Your task to perform on an android device: Search for Mexican restaurants on Maps Image 0: 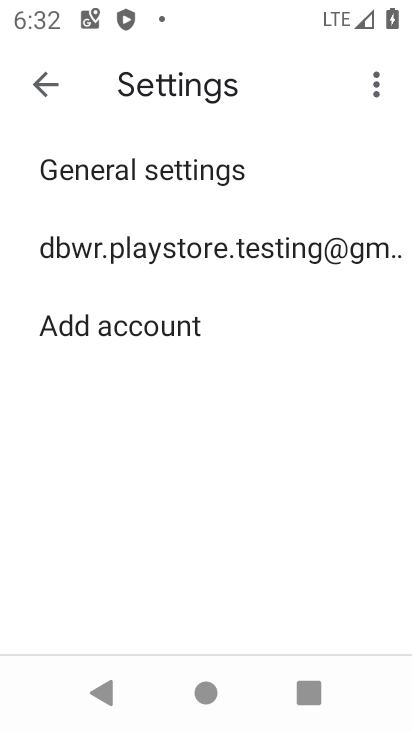
Step 0: press home button
Your task to perform on an android device: Search for Mexican restaurants on Maps Image 1: 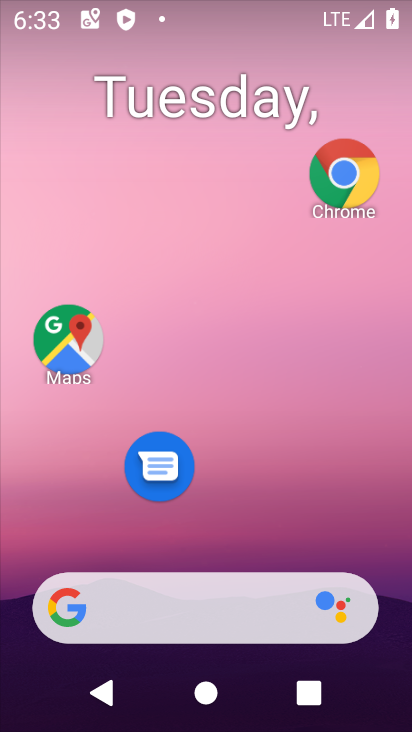
Step 1: drag from (303, 510) to (281, 4)
Your task to perform on an android device: Search for Mexican restaurants on Maps Image 2: 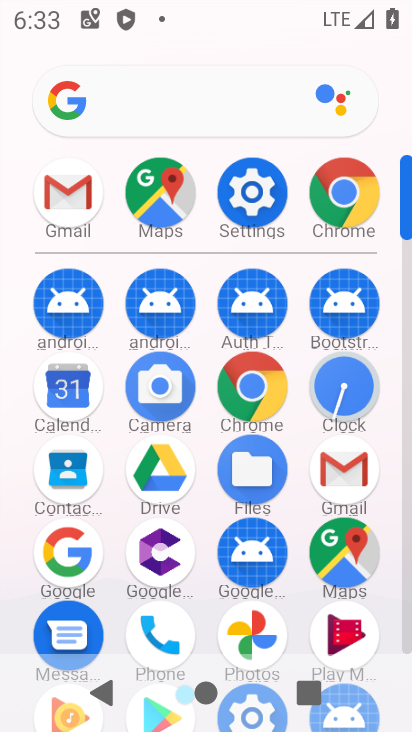
Step 2: click (175, 186)
Your task to perform on an android device: Search for Mexican restaurants on Maps Image 3: 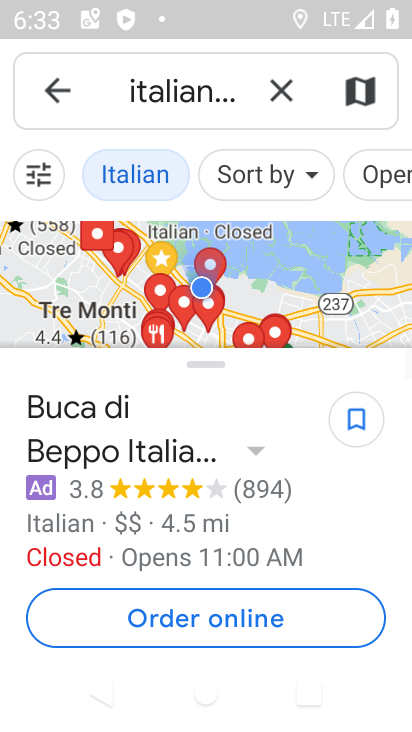
Step 3: click (294, 81)
Your task to perform on an android device: Search for Mexican restaurants on Maps Image 4: 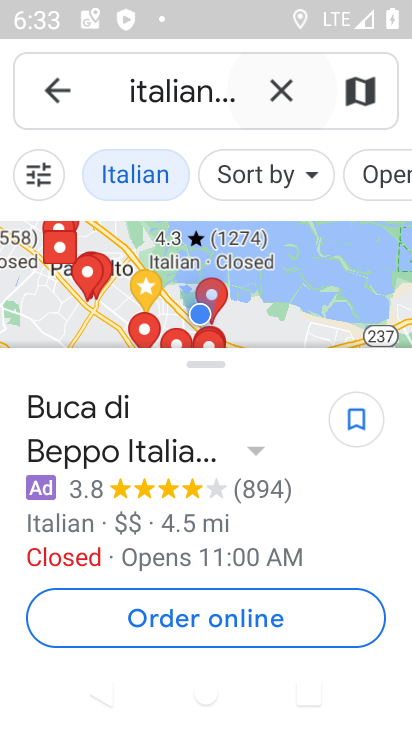
Step 4: click (177, 99)
Your task to perform on an android device: Search for Mexican restaurants on Maps Image 5: 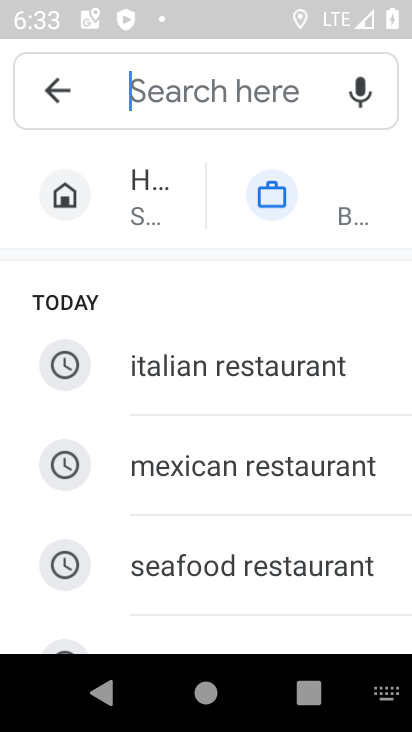
Step 5: type "Mexican restaurants"
Your task to perform on an android device: Search for Mexican restaurants on Maps Image 6: 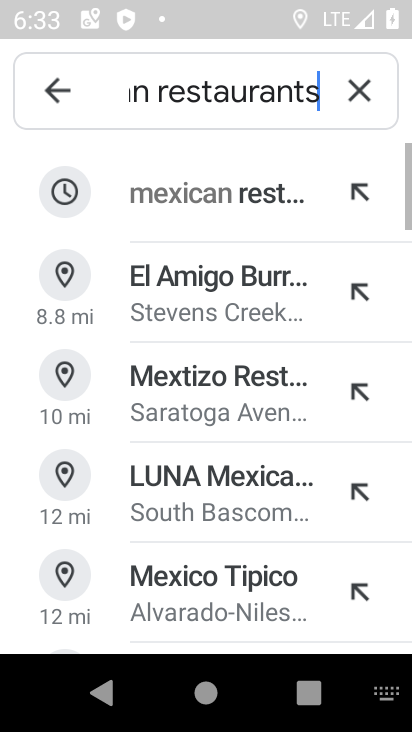
Step 6: click (247, 196)
Your task to perform on an android device: Search for Mexican restaurants on Maps Image 7: 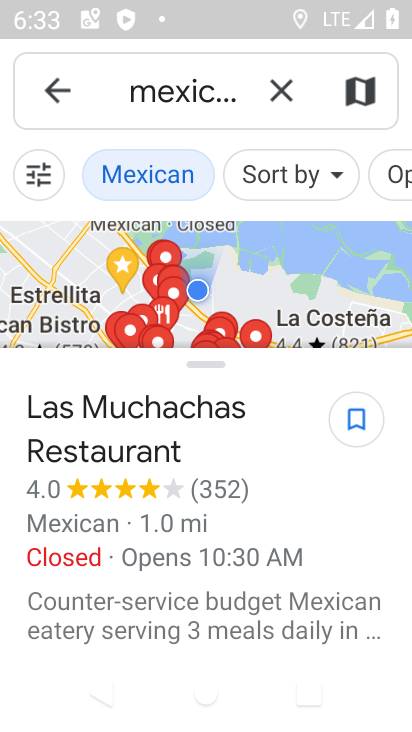
Step 7: task complete